Your task to perform on an android device: Search for pizza restaurants on Maps Image 0: 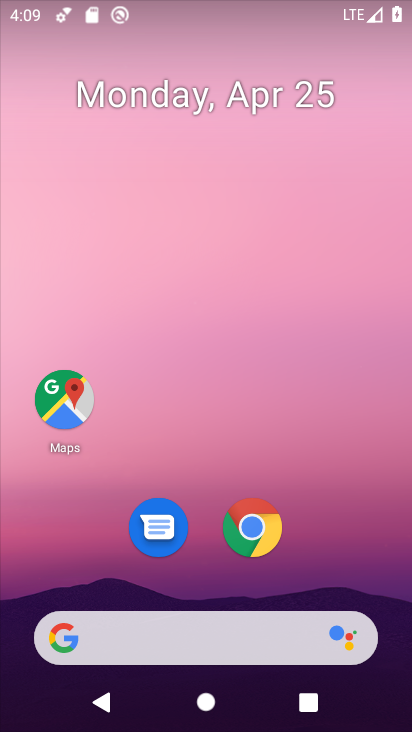
Step 0: click (56, 391)
Your task to perform on an android device: Search for pizza restaurants on Maps Image 1: 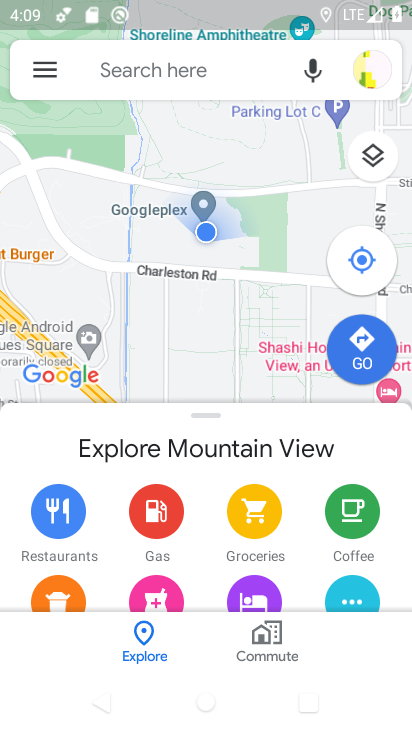
Step 1: click (149, 76)
Your task to perform on an android device: Search for pizza restaurants on Maps Image 2: 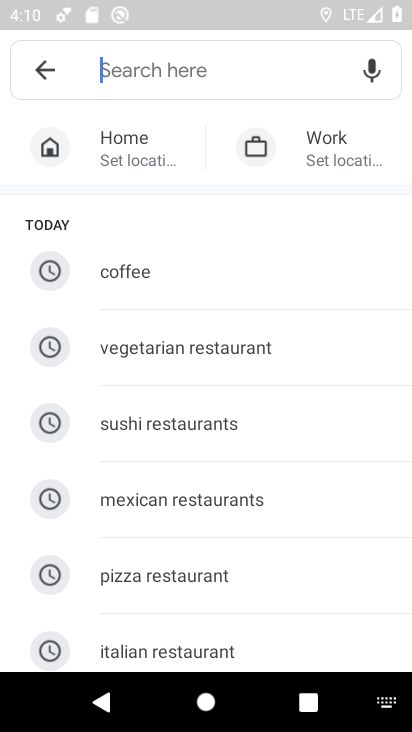
Step 2: type "pizza restaurants"
Your task to perform on an android device: Search for pizza restaurants on Maps Image 3: 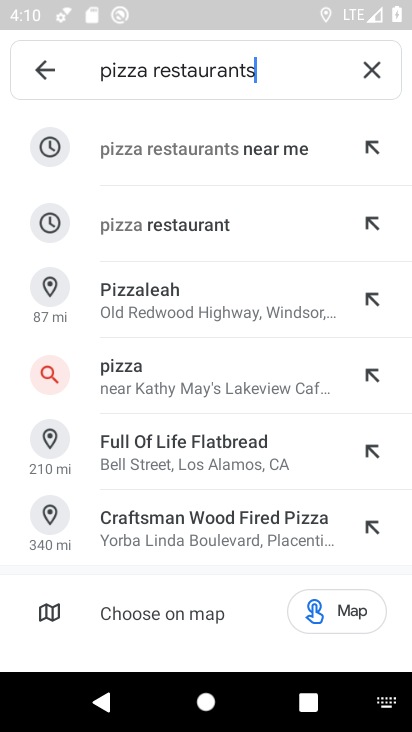
Step 3: click (180, 226)
Your task to perform on an android device: Search for pizza restaurants on Maps Image 4: 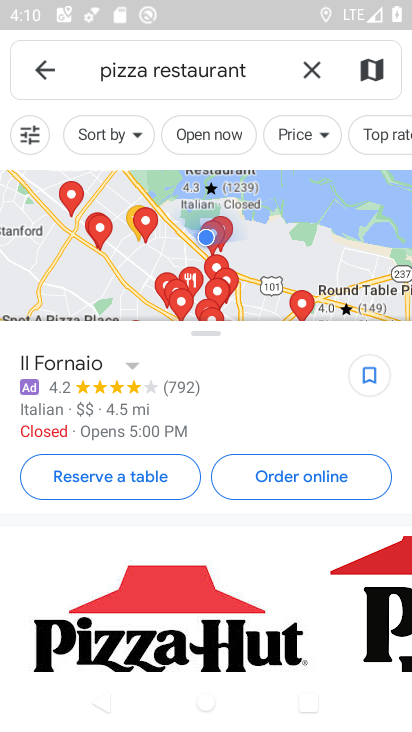
Step 4: task complete